Your task to perform on an android device: check out phone information Image 0: 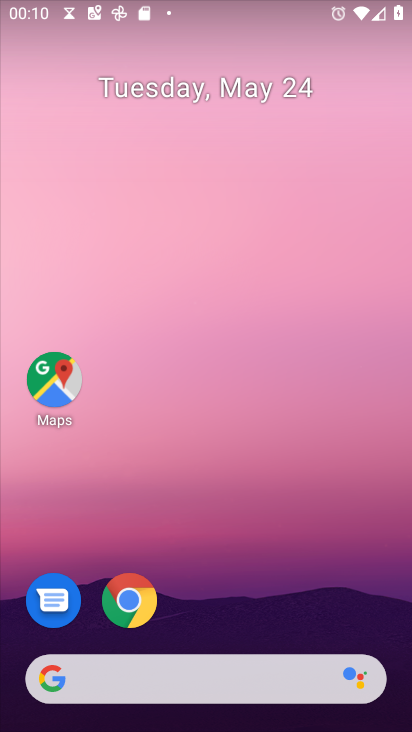
Step 0: drag from (227, 719) to (223, 122)
Your task to perform on an android device: check out phone information Image 1: 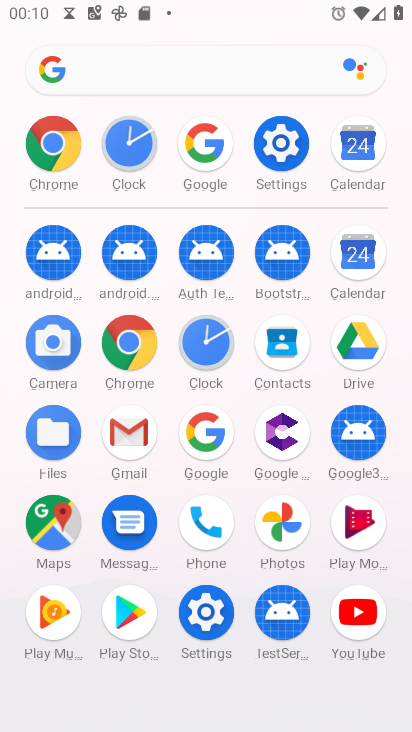
Step 1: click (276, 140)
Your task to perform on an android device: check out phone information Image 2: 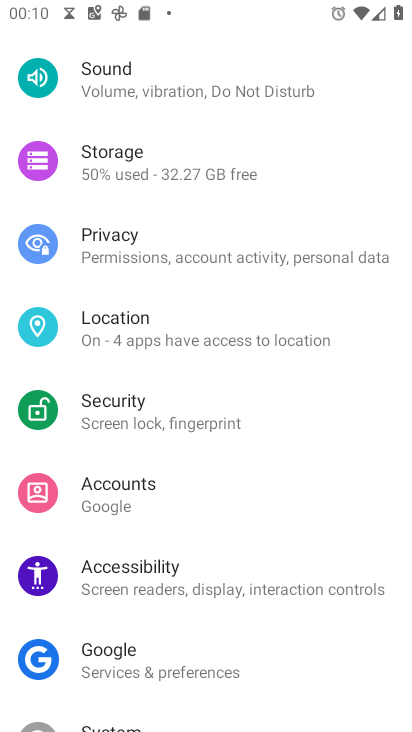
Step 2: drag from (266, 142) to (304, 545)
Your task to perform on an android device: check out phone information Image 3: 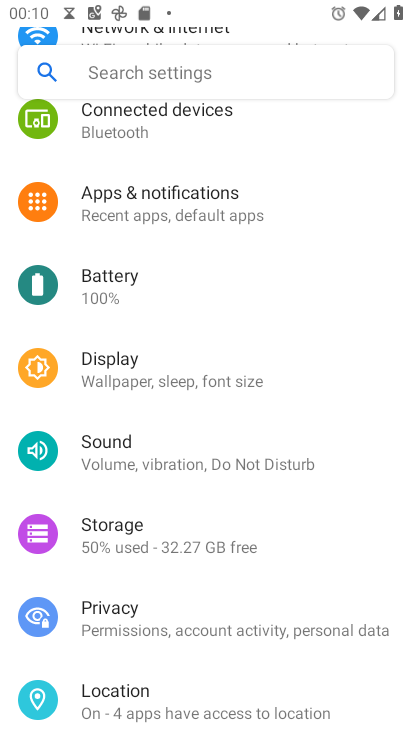
Step 3: drag from (284, 687) to (236, 189)
Your task to perform on an android device: check out phone information Image 4: 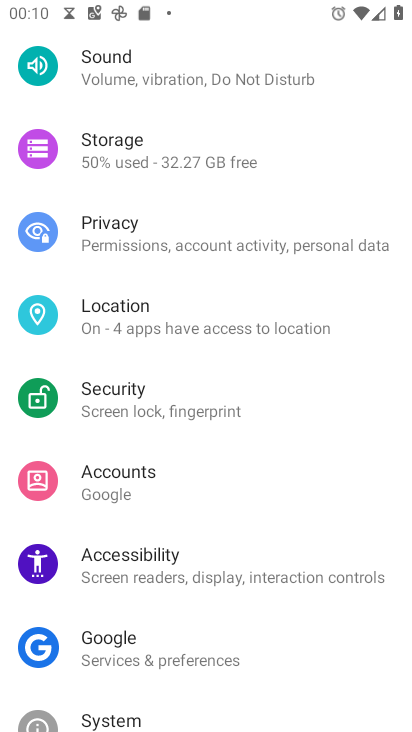
Step 4: drag from (193, 684) to (227, 236)
Your task to perform on an android device: check out phone information Image 5: 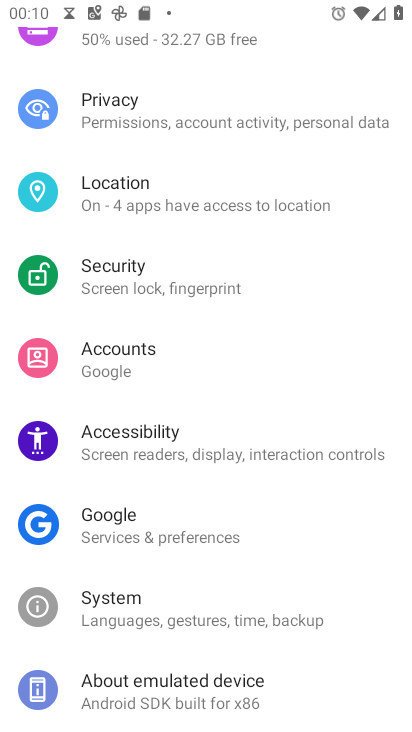
Step 5: drag from (217, 670) to (221, 282)
Your task to perform on an android device: check out phone information Image 6: 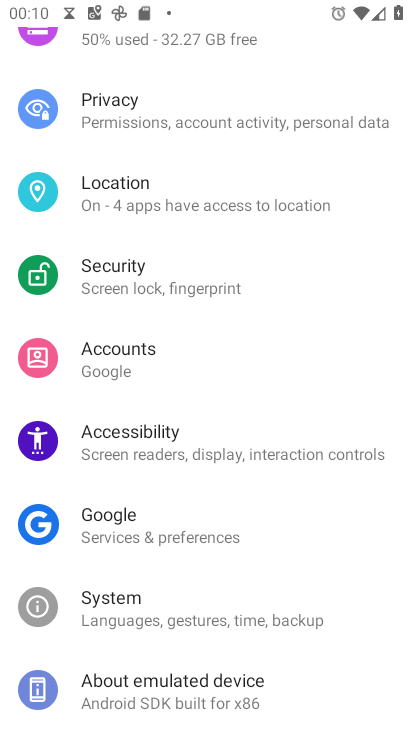
Step 6: click (130, 683)
Your task to perform on an android device: check out phone information Image 7: 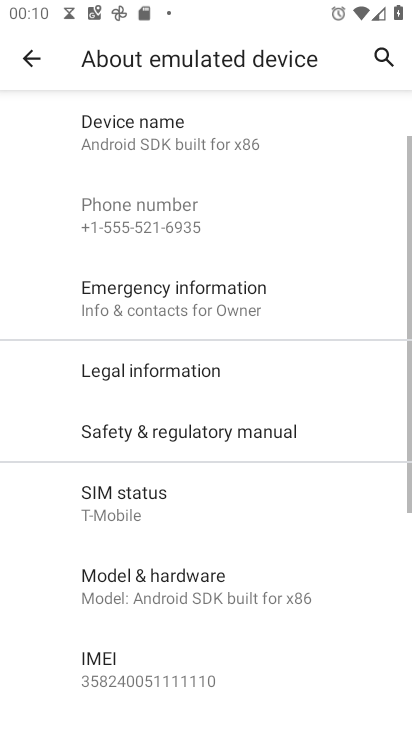
Step 7: task complete